Your task to perform on an android device: Open Chrome and go to settings Image 0: 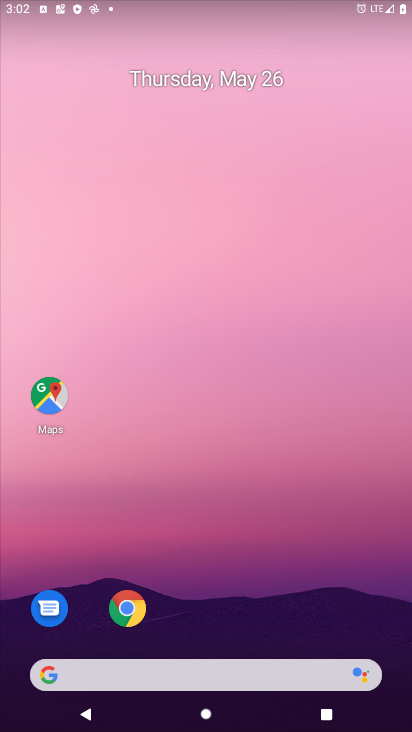
Step 0: click (126, 603)
Your task to perform on an android device: Open Chrome and go to settings Image 1: 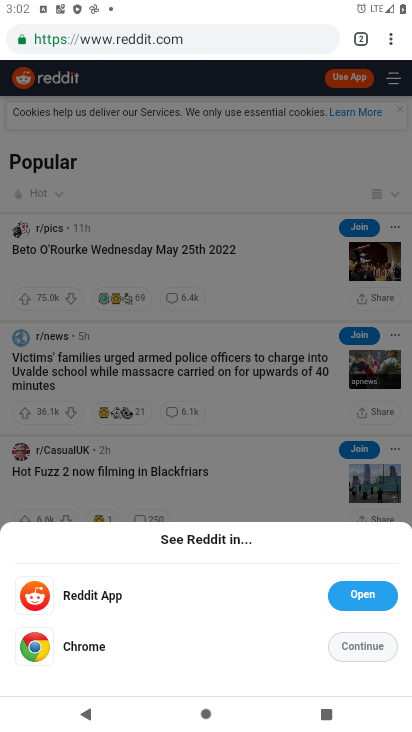
Step 1: click (387, 41)
Your task to perform on an android device: Open Chrome and go to settings Image 2: 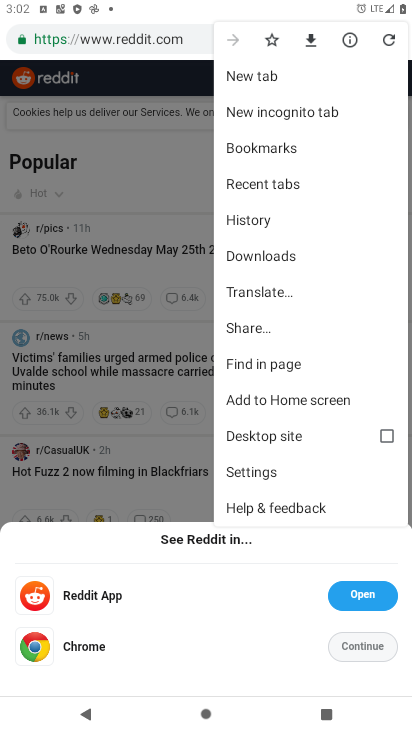
Step 2: click (265, 473)
Your task to perform on an android device: Open Chrome and go to settings Image 3: 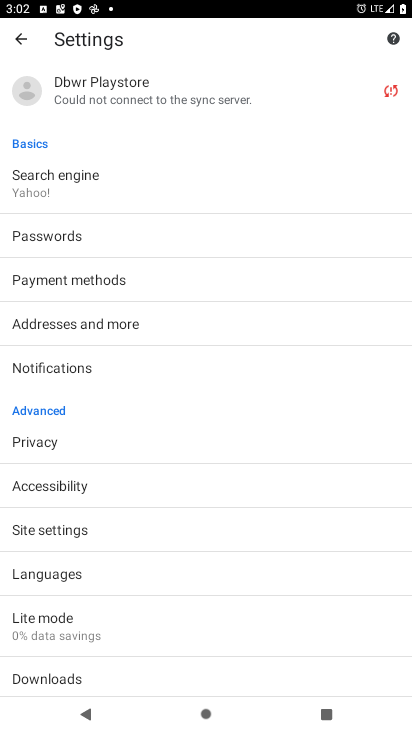
Step 3: task complete